Your task to perform on an android device: Open the stopwatch Image 0: 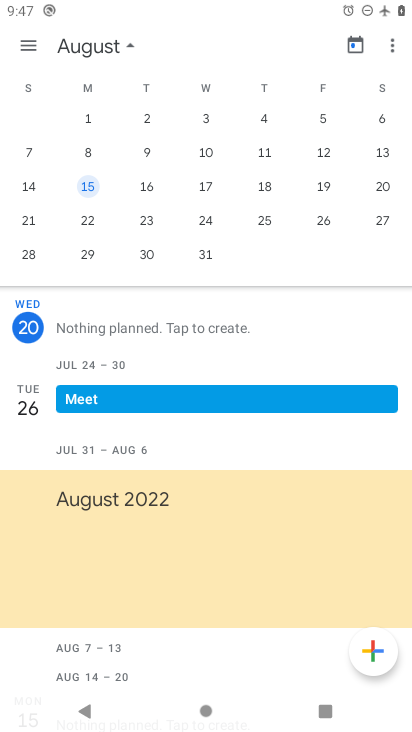
Step 0: press home button
Your task to perform on an android device: Open the stopwatch Image 1: 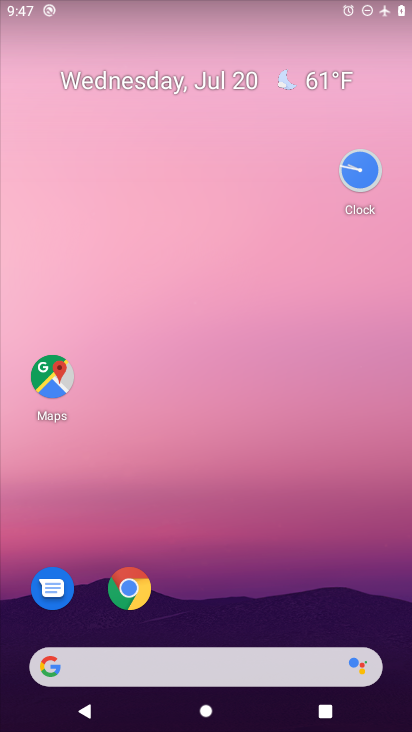
Step 1: drag from (8, 708) to (312, 9)
Your task to perform on an android device: Open the stopwatch Image 2: 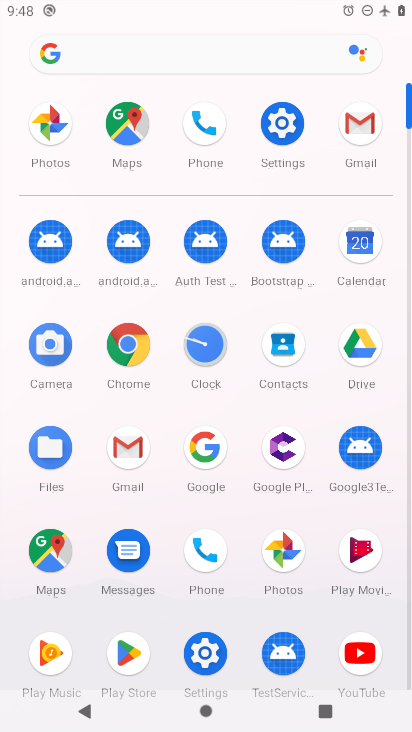
Step 2: click (219, 361)
Your task to perform on an android device: Open the stopwatch Image 3: 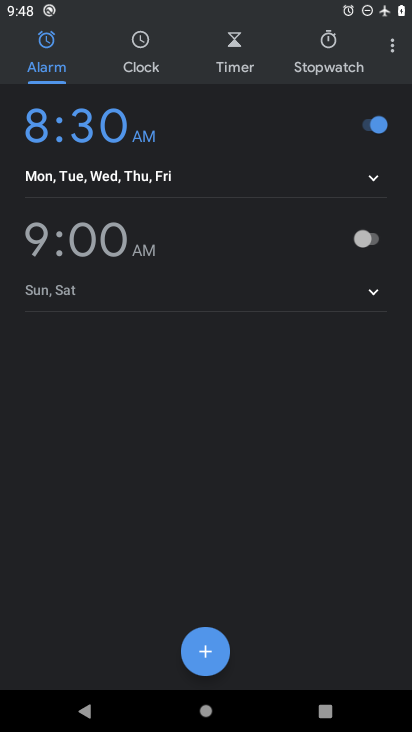
Step 3: click (350, 54)
Your task to perform on an android device: Open the stopwatch Image 4: 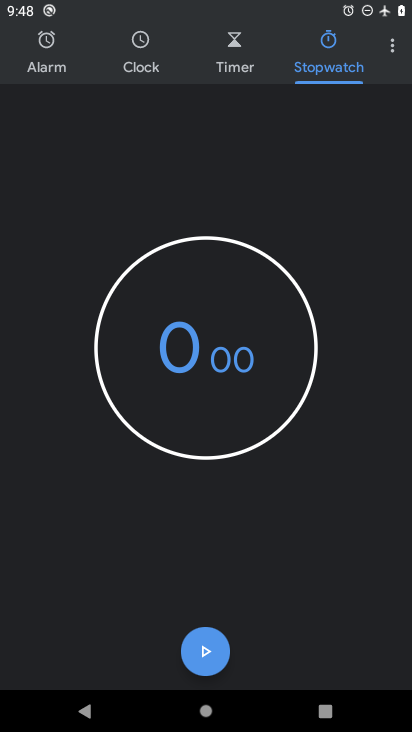
Step 4: task complete